Your task to perform on an android device: Search for seafood restaurants on Google Maps Image 0: 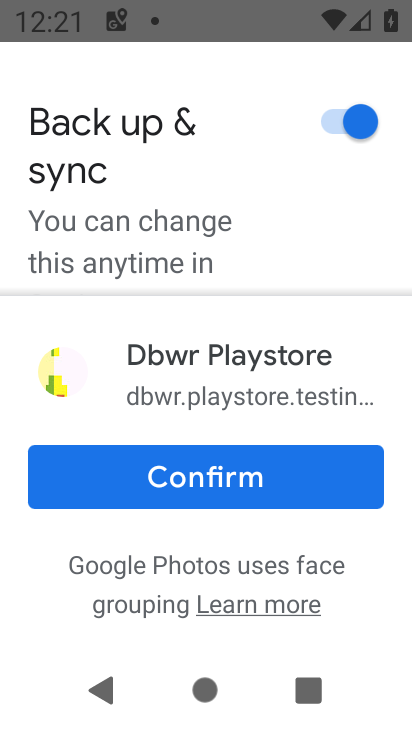
Step 0: press home button
Your task to perform on an android device: Search for seafood restaurants on Google Maps Image 1: 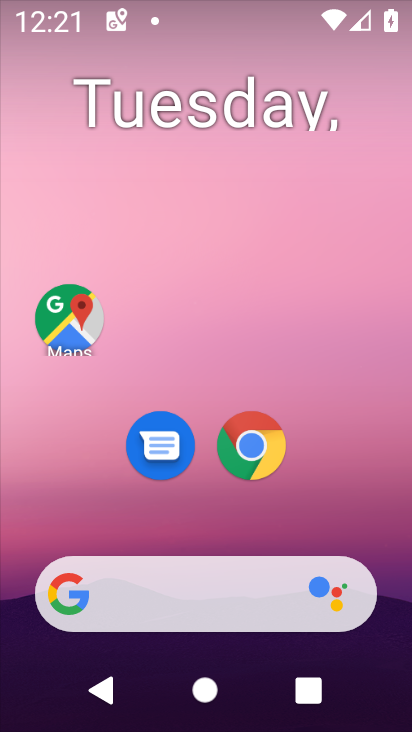
Step 1: drag from (377, 551) to (374, 192)
Your task to perform on an android device: Search for seafood restaurants on Google Maps Image 2: 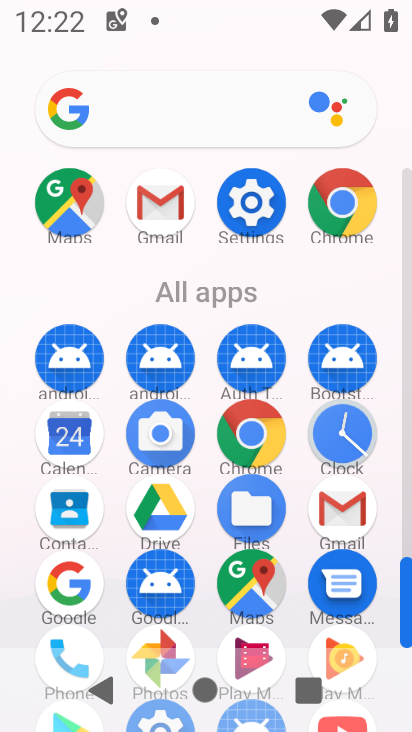
Step 2: drag from (392, 669) to (396, 396)
Your task to perform on an android device: Search for seafood restaurants on Google Maps Image 3: 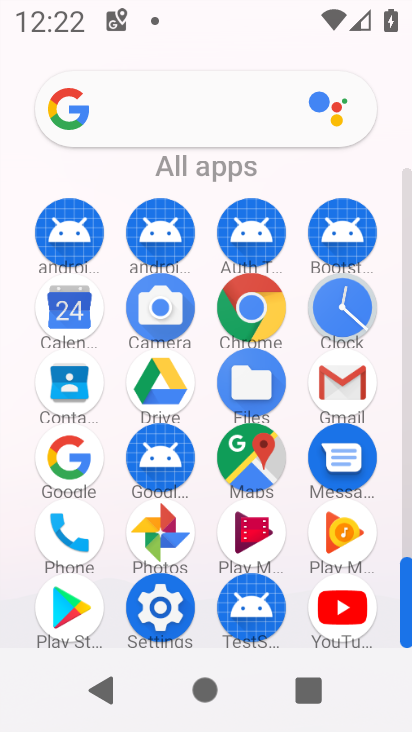
Step 3: click (244, 463)
Your task to perform on an android device: Search for seafood restaurants on Google Maps Image 4: 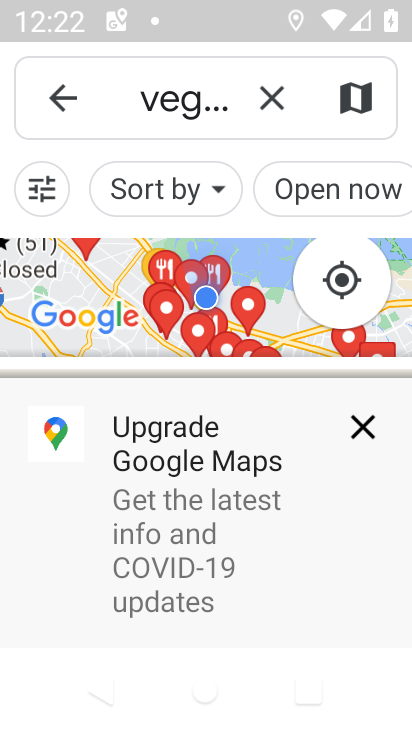
Step 4: click (269, 104)
Your task to perform on an android device: Search for seafood restaurants on Google Maps Image 5: 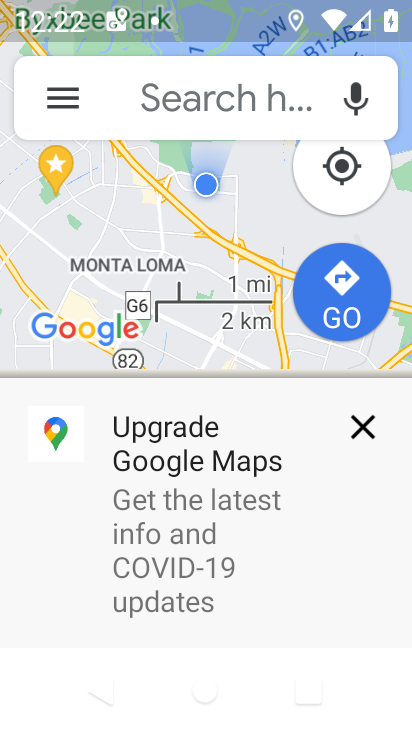
Step 5: click (207, 119)
Your task to perform on an android device: Search for seafood restaurants on Google Maps Image 6: 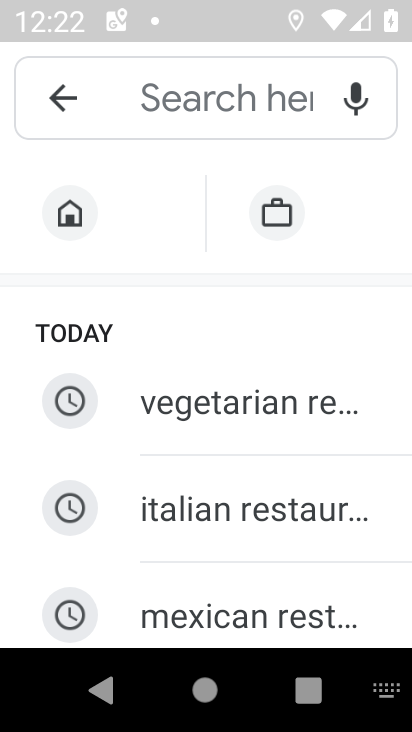
Step 6: type "seafood restaurants"
Your task to perform on an android device: Search for seafood restaurants on Google Maps Image 7: 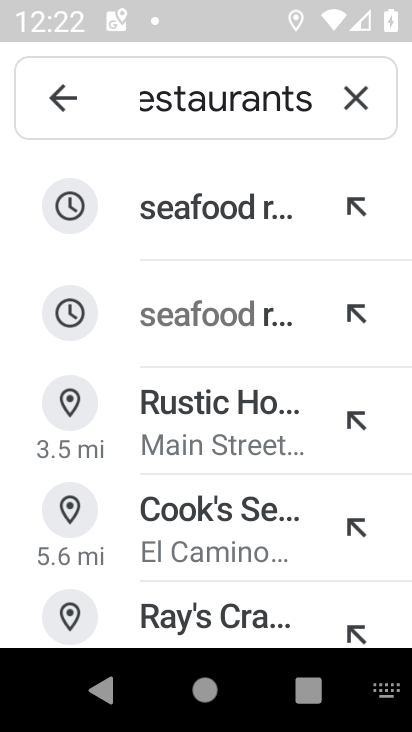
Step 7: click (246, 244)
Your task to perform on an android device: Search for seafood restaurants on Google Maps Image 8: 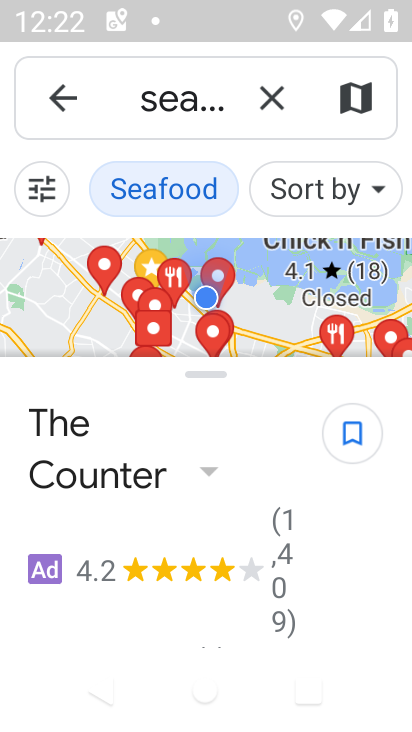
Step 8: task complete